Your task to perform on an android device: Go to Yahoo.com Image 0: 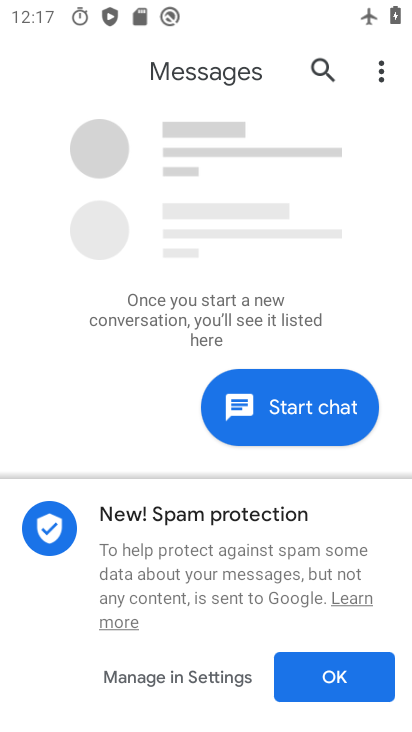
Step 0: press home button
Your task to perform on an android device: Go to Yahoo.com Image 1: 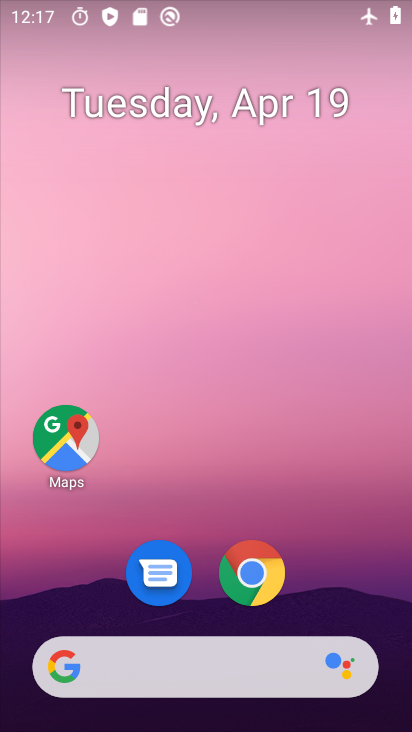
Step 1: click (271, 581)
Your task to perform on an android device: Go to Yahoo.com Image 2: 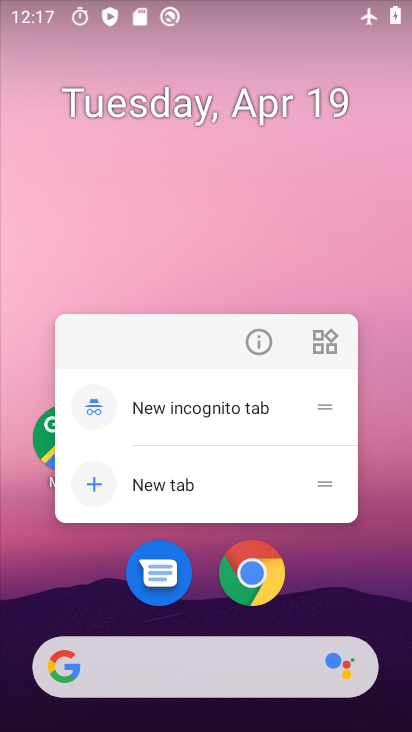
Step 2: click (269, 571)
Your task to perform on an android device: Go to Yahoo.com Image 3: 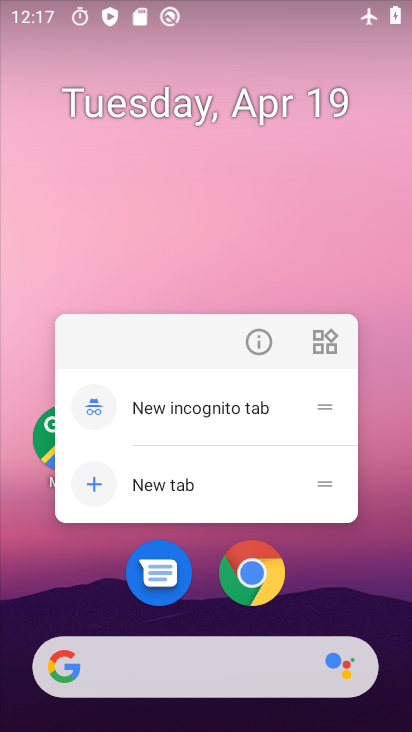
Step 3: click (269, 571)
Your task to perform on an android device: Go to Yahoo.com Image 4: 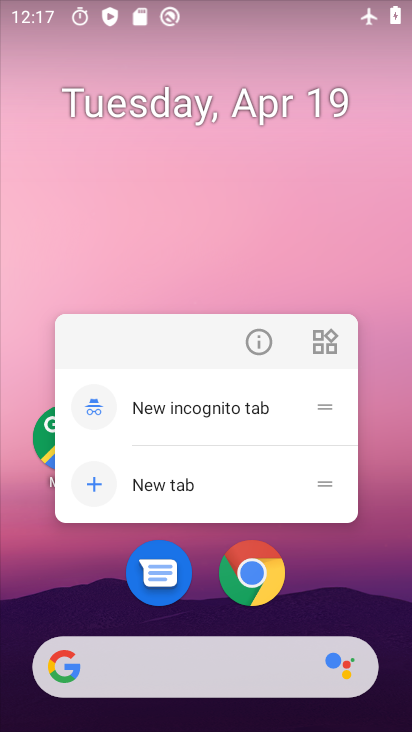
Step 4: click (269, 571)
Your task to perform on an android device: Go to Yahoo.com Image 5: 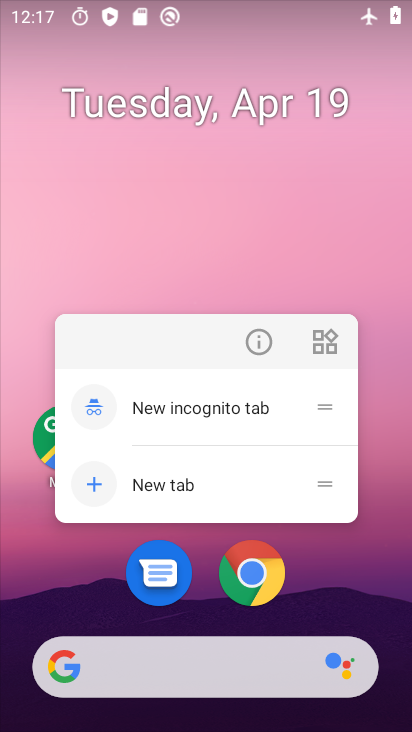
Step 5: click (269, 571)
Your task to perform on an android device: Go to Yahoo.com Image 6: 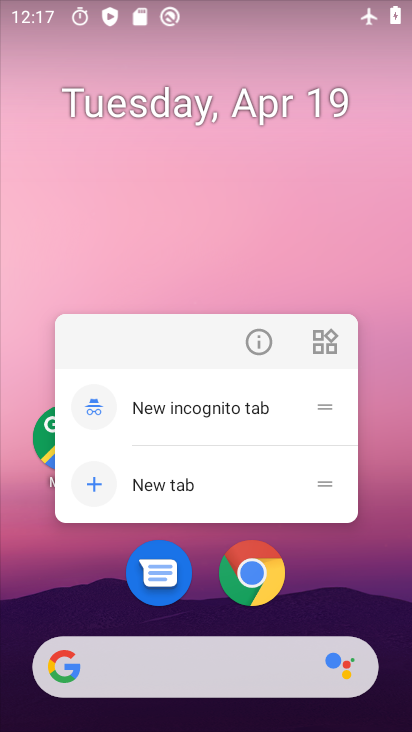
Step 6: click (269, 571)
Your task to perform on an android device: Go to Yahoo.com Image 7: 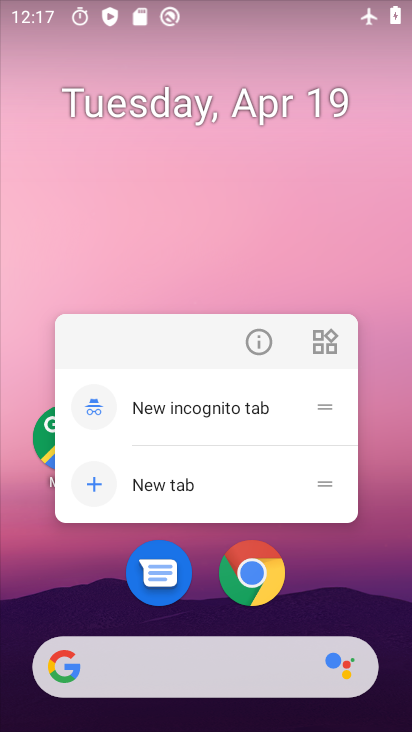
Step 7: click (258, 595)
Your task to perform on an android device: Go to Yahoo.com Image 8: 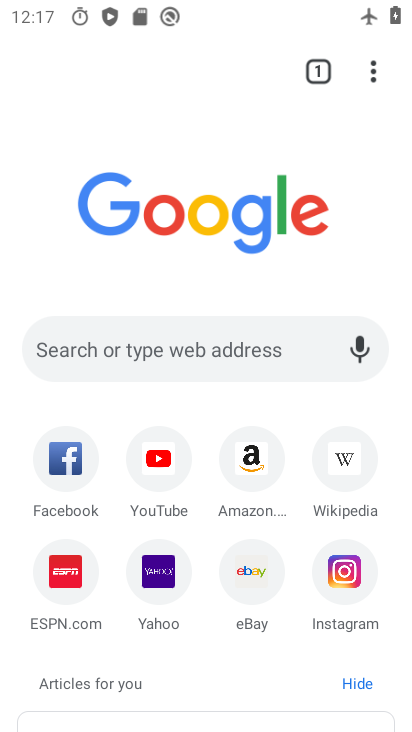
Step 8: click (368, 83)
Your task to perform on an android device: Go to Yahoo.com Image 9: 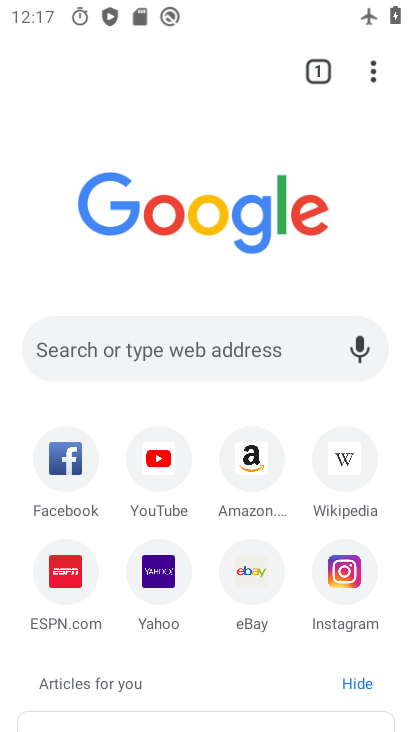
Step 9: click (181, 350)
Your task to perform on an android device: Go to Yahoo.com Image 10: 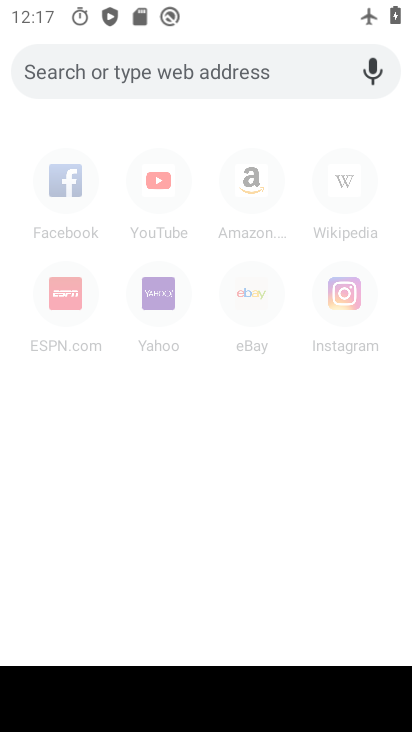
Step 10: type "yahoo.com"
Your task to perform on an android device: Go to Yahoo.com Image 11: 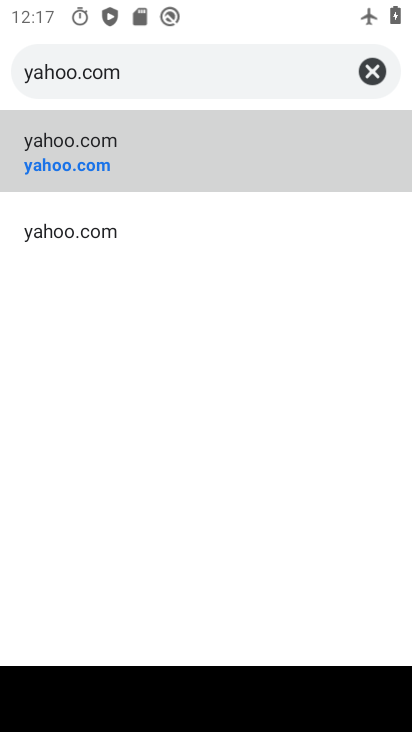
Step 11: click (68, 136)
Your task to perform on an android device: Go to Yahoo.com Image 12: 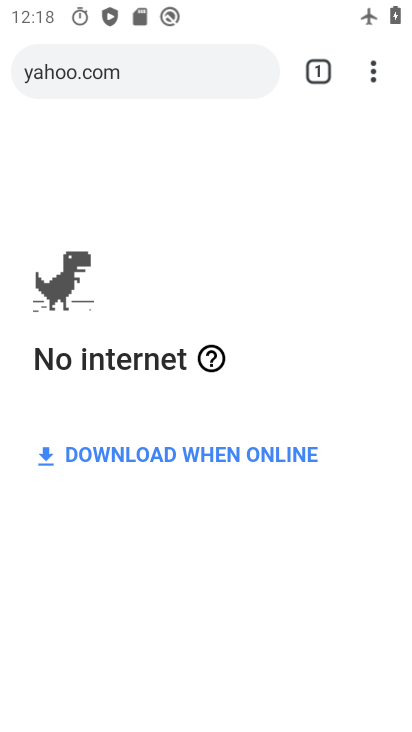
Step 12: task complete